Your task to perform on an android device: turn on priority inbox in the gmail app Image 0: 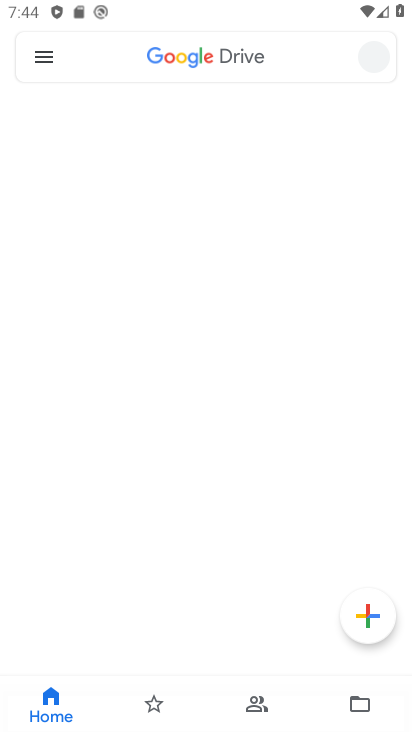
Step 0: press home button
Your task to perform on an android device: turn on priority inbox in the gmail app Image 1: 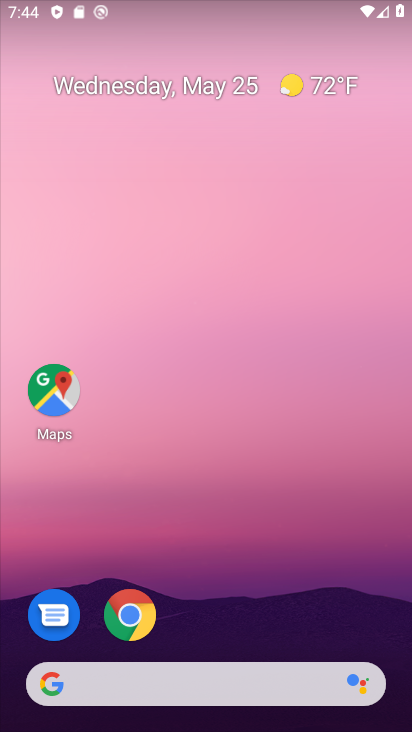
Step 1: drag from (247, 530) to (248, 41)
Your task to perform on an android device: turn on priority inbox in the gmail app Image 2: 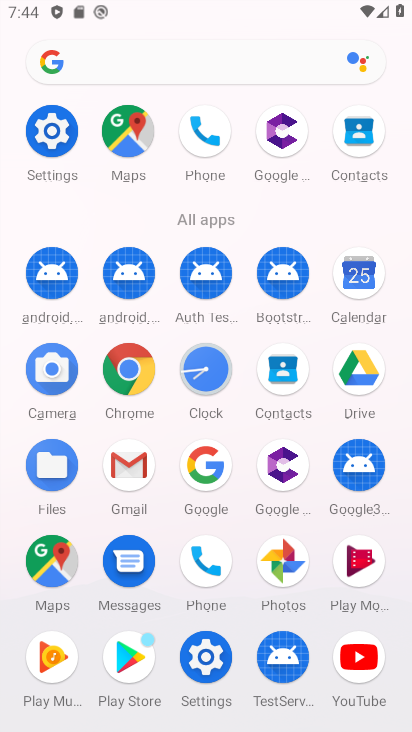
Step 2: click (128, 464)
Your task to perform on an android device: turn on priority inbox in the gmail app Image 3: 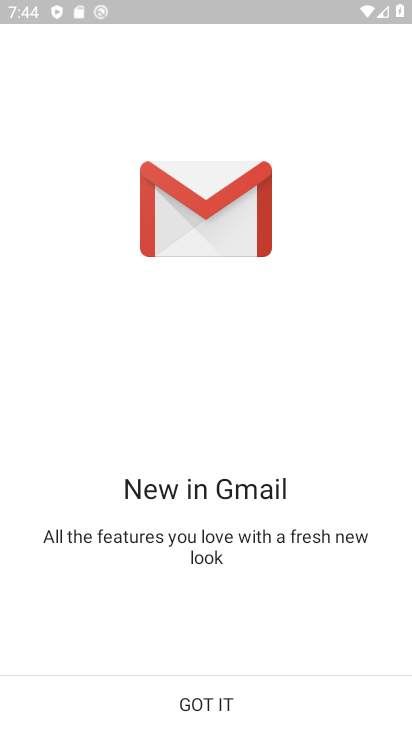
Step 3: click (205, 691)
Your task to perform on an android device: turn on priority inbox in the gmail app Image 4: 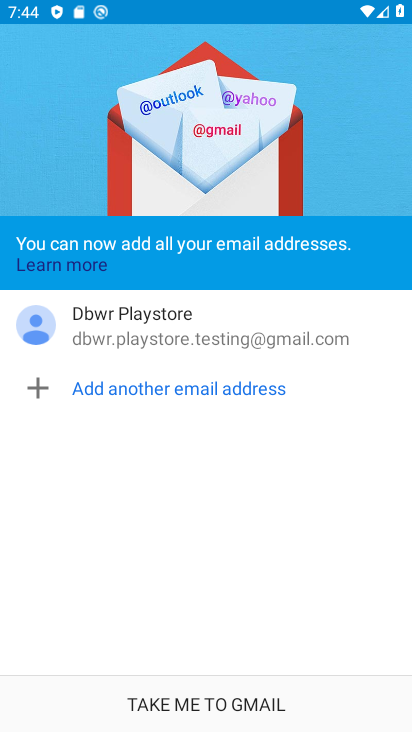
Step 4: click (205, 691)
Your task to perform on an android device: turn on priority inbox in the gmail app Image 5: 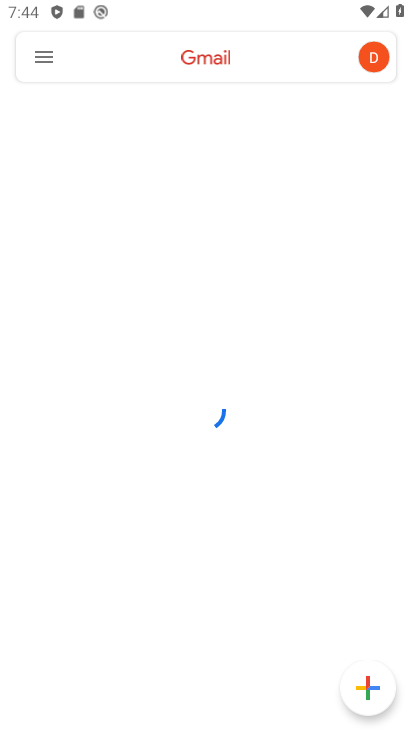
Step 5: click (42, 52)
Your task to perform on an android device: turn on priority inbox in the gmail app Image 6: 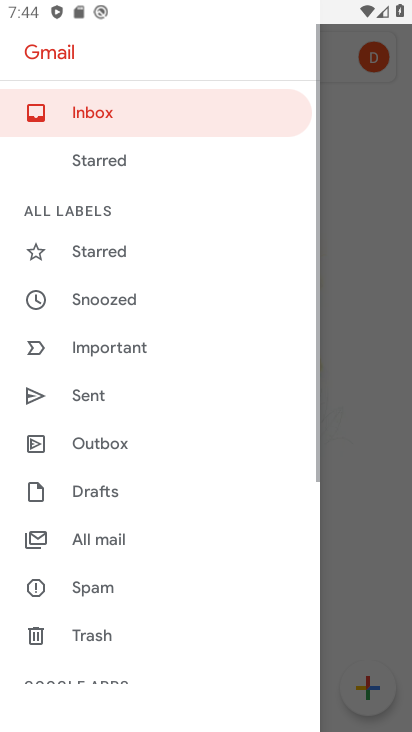
Step 6: click (107, 263)
Your task to perform on an android device: turn on priority inbox in the gmail app Image 7: 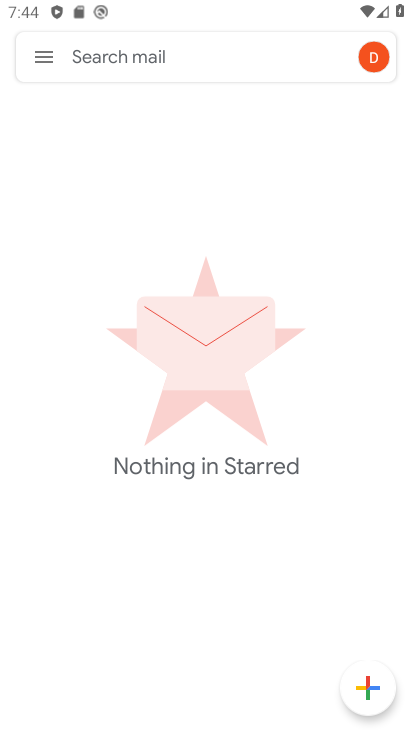
Step 7: press back button
Your task to perform on an android device: turn on priority inbox in the gmail app Image 8: 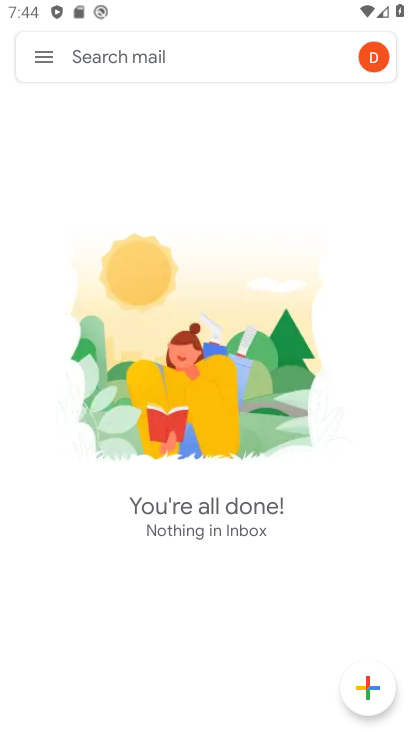
Step 8: click (42, 51)
Your task to perform on an android device: turn on priority inbox in the gmail app Image 9: 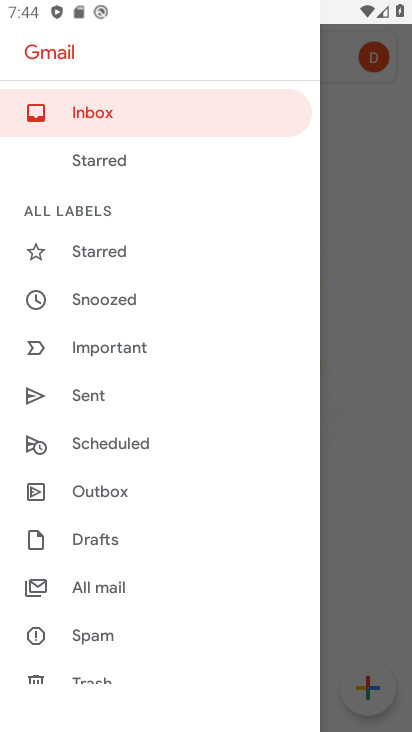
Step 9: drag from (173, 541) to (227, 111)
Your task to perform on an android device: turn on priority inbox in the gmail app Image 10: 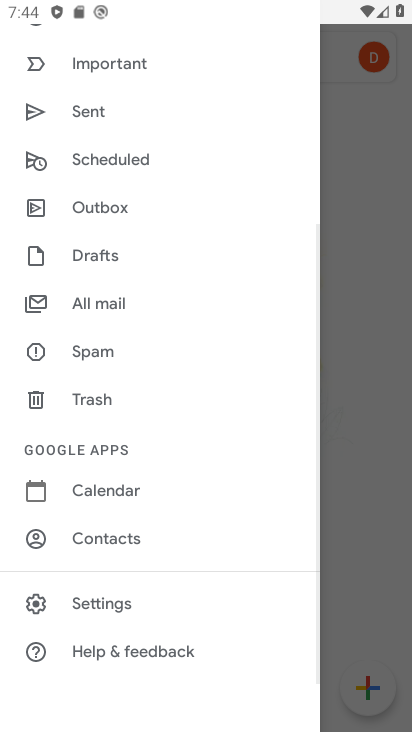
Step 10: click (116, 604)
Your task to perform on an android device: turn on priority inbox in the gmail app Image 11: 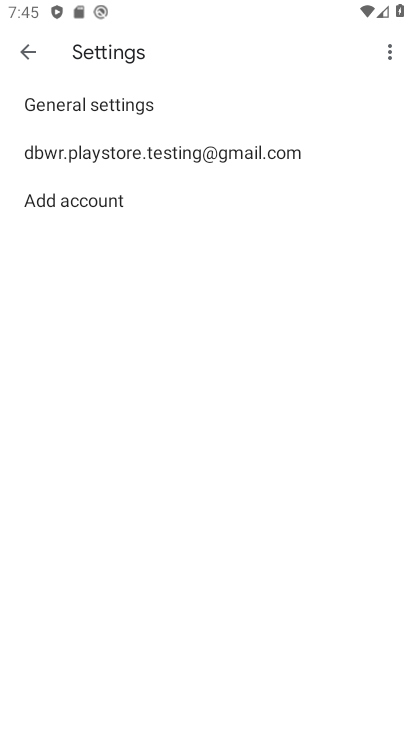
Step 11: click (183, 151)
Your task to perform on an android device: turn on priority inbox in the gmail app Image 12: 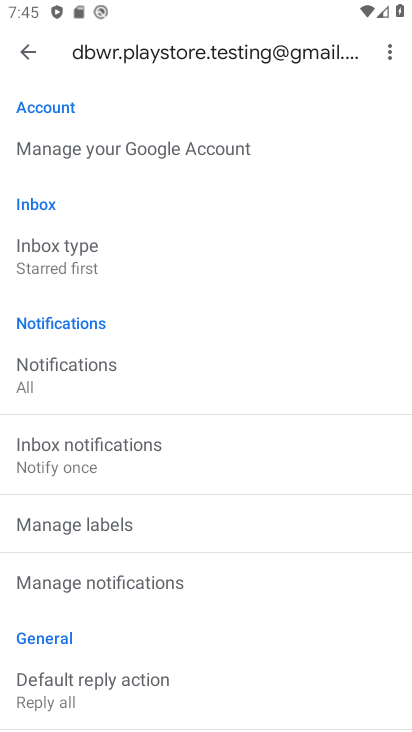
Step 12: click (105, 253)
Your task to perform on an android device: turn on priority inbox in the gmail app Image 13: 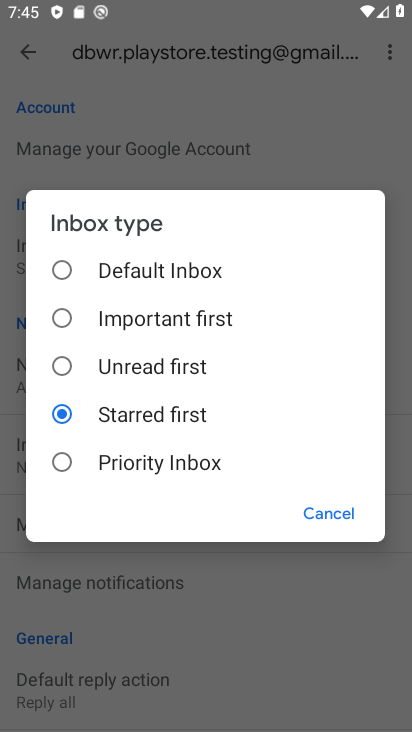
Step 13: click (62, 455)
Your task to perform on an android device: turn on priority inbox in the gmail app Image 14: 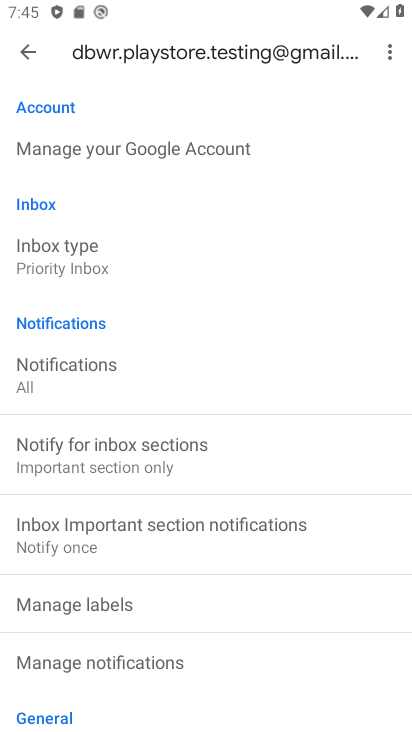
Step 14: task complete